Your task to perform on an android device: Open sound settings Image 0: 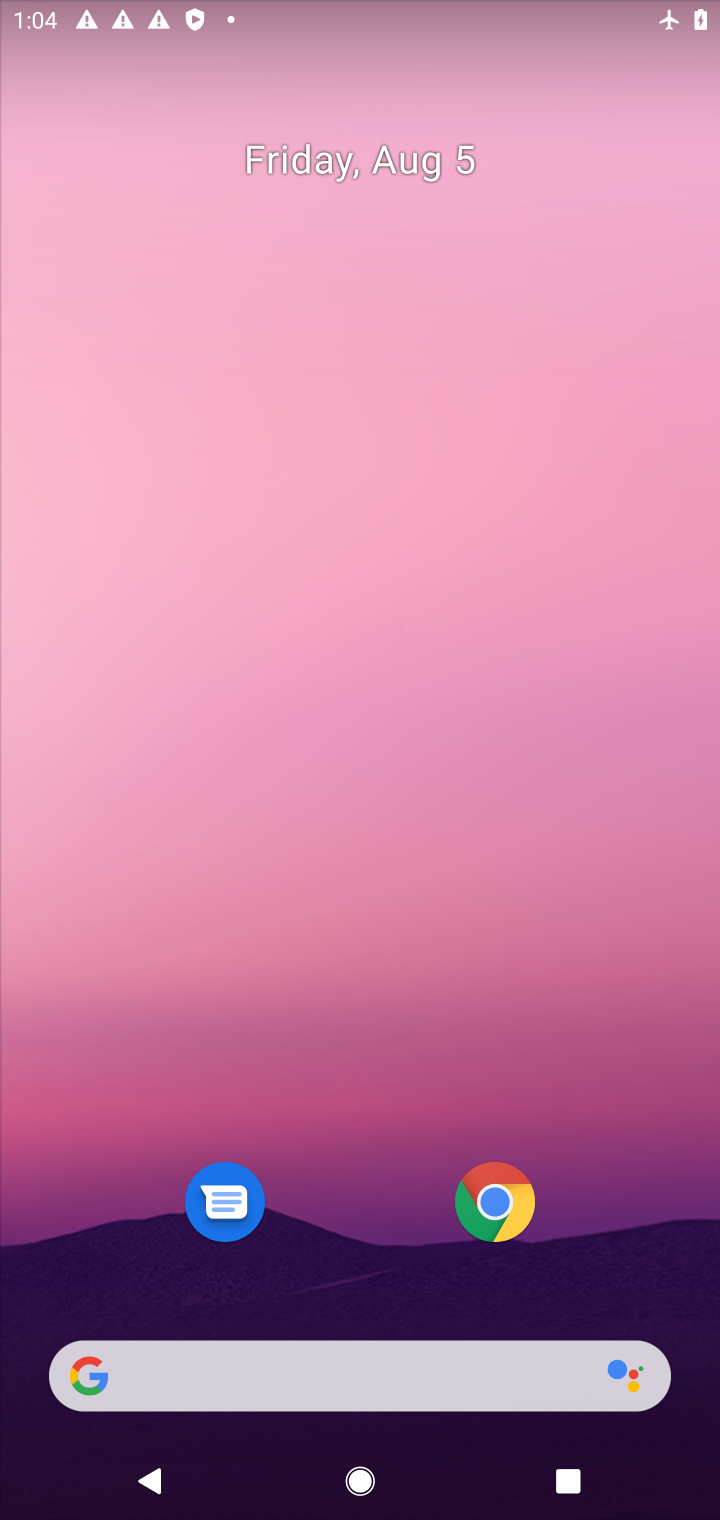
Step 0: drag from (389, 577) to (389, 202)
Your task to perform on an android device: Open sound settings Image 1: 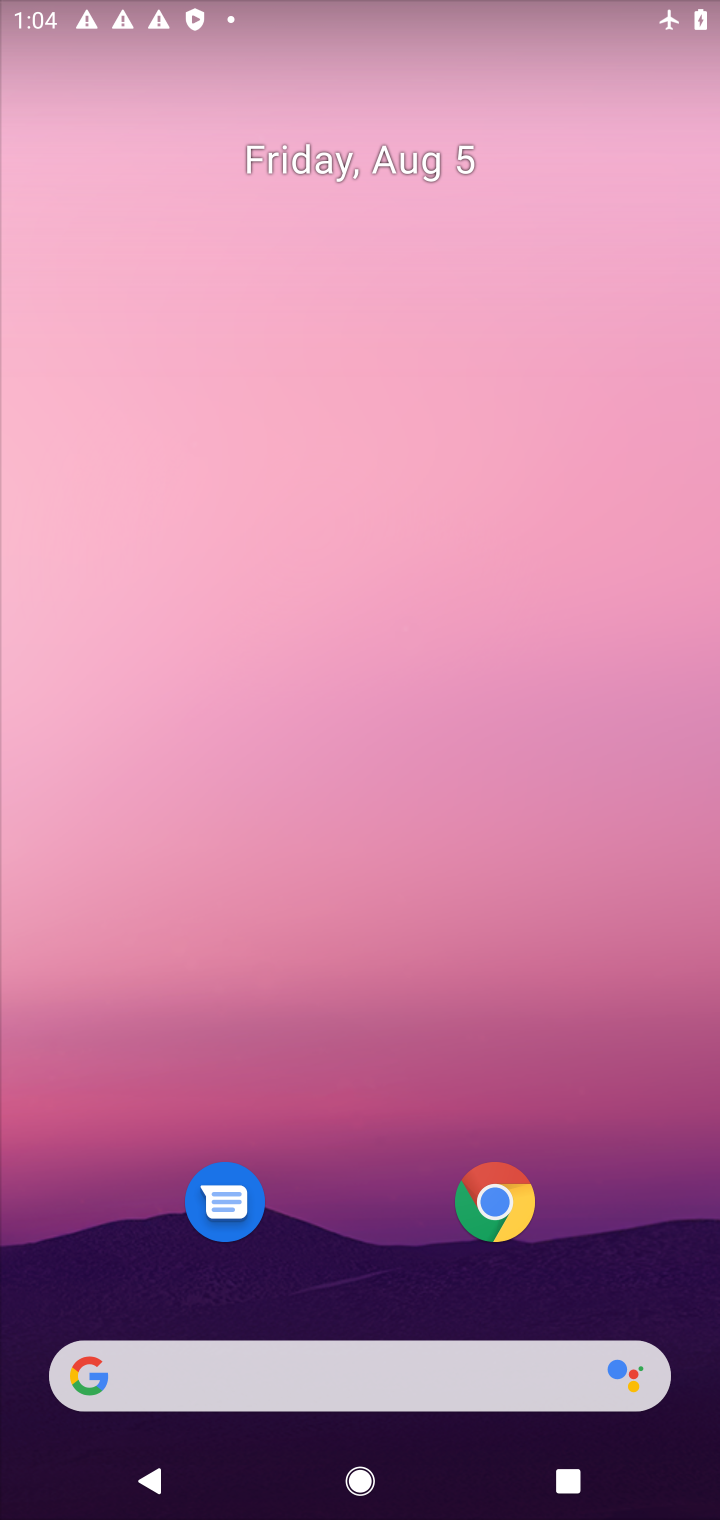
Step 1: drag from (355, 1234) to (448, 110)
Your task to perform on an android device: Open sound settings Image 2: 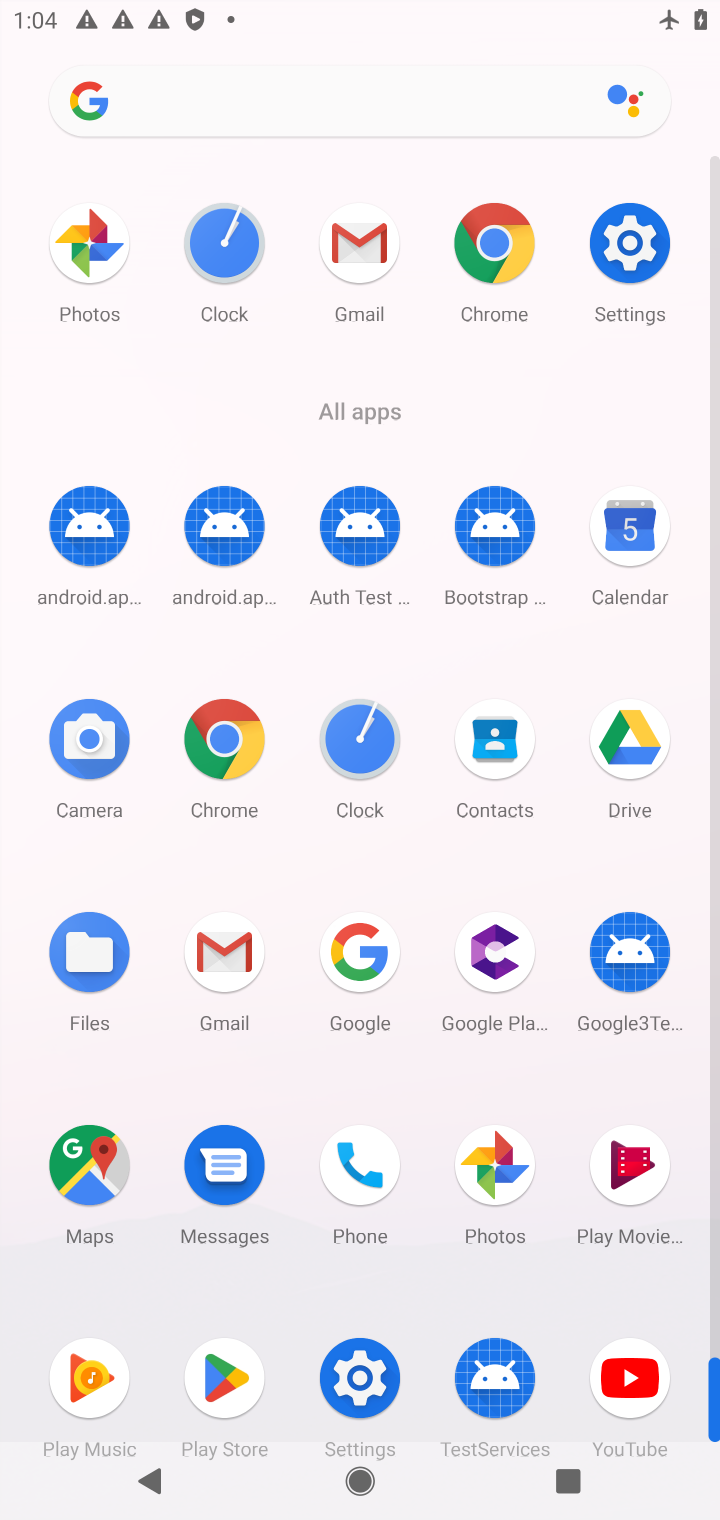
Step 2: click (373, 1386)
Your task to perform on an android device: Open sound settings Image 3: 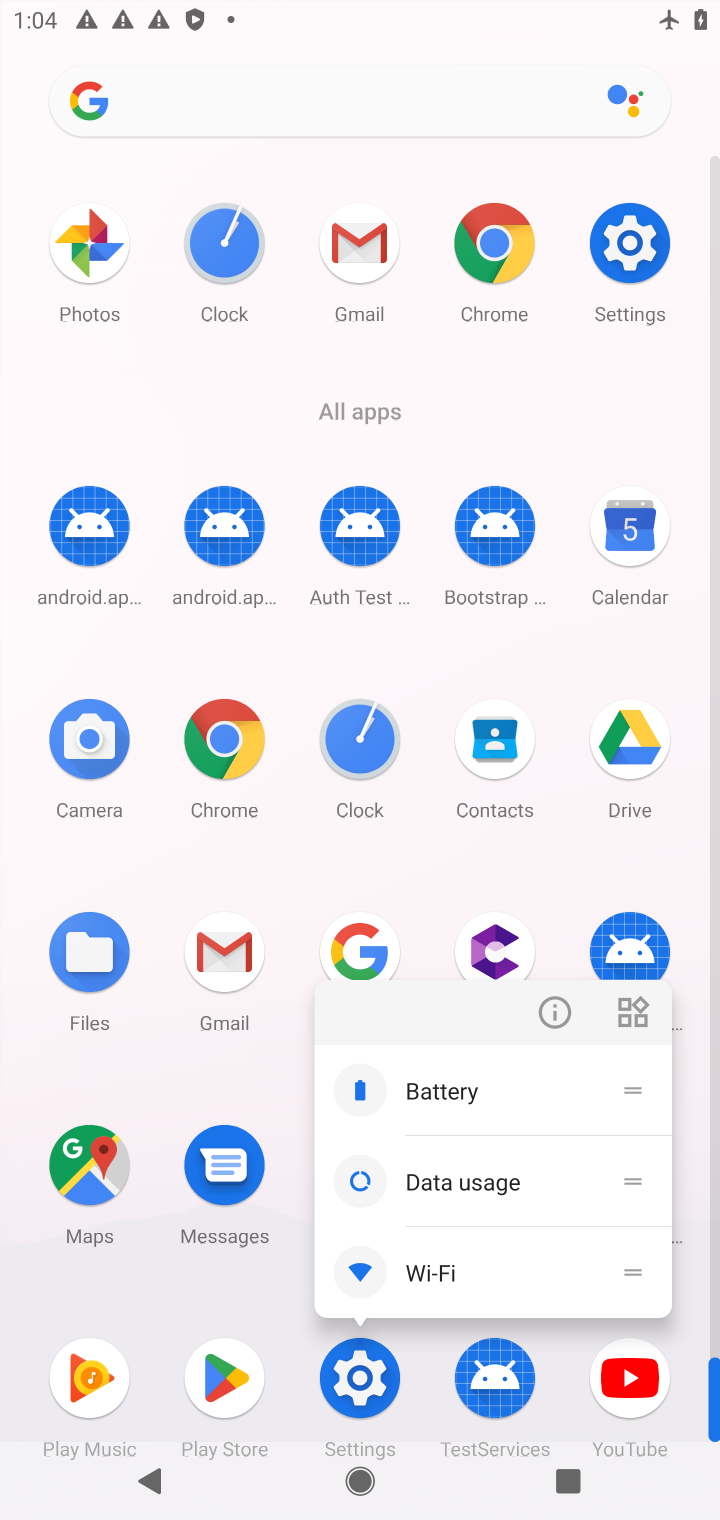
Step 3: click (373, 1377)
Your task to perform on an android device: Open sound settings Image 4: 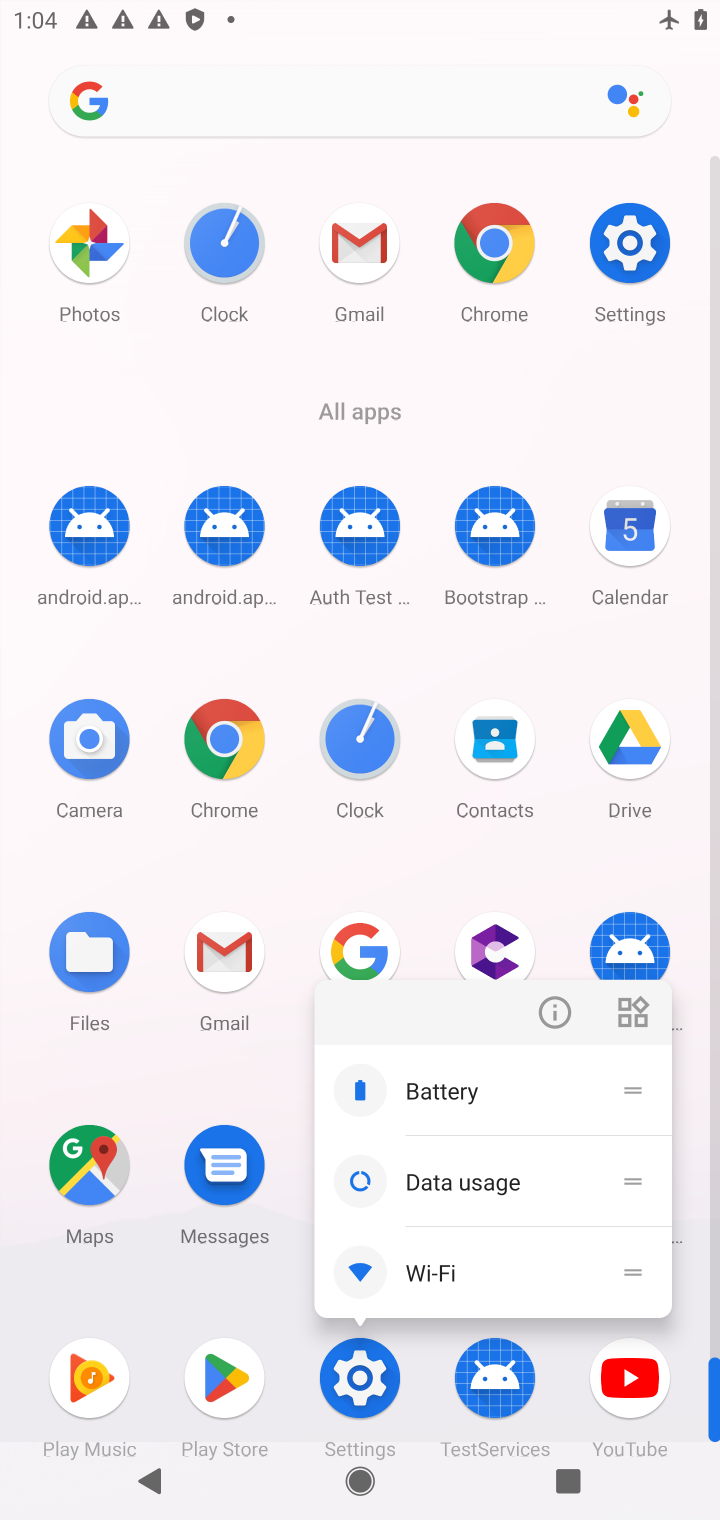
Step 4: click (273, 1277)
Your task to perform on an android device: Open sound settings Image 5: 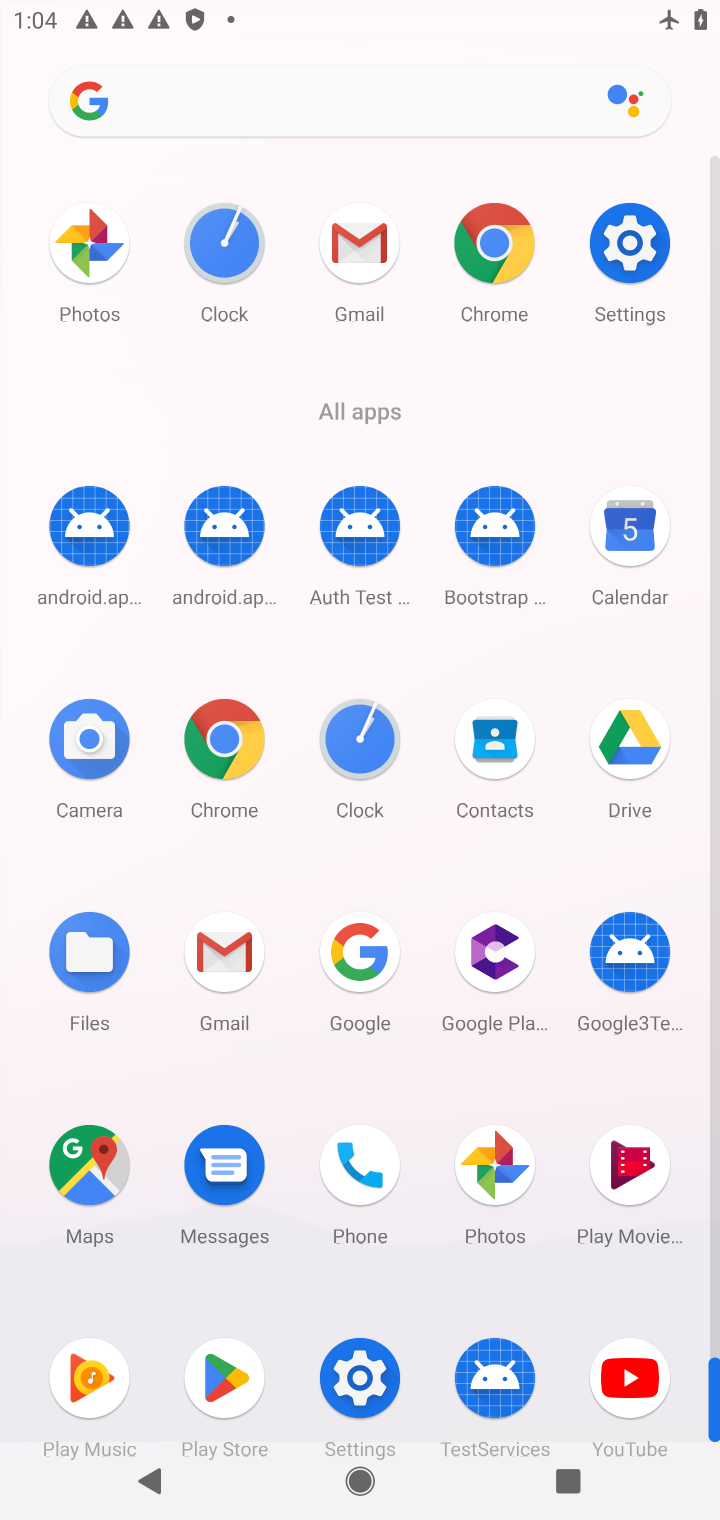
Step 5: click (357, 1376)
Your task to perform on an android device: Open sound settings Image 6: 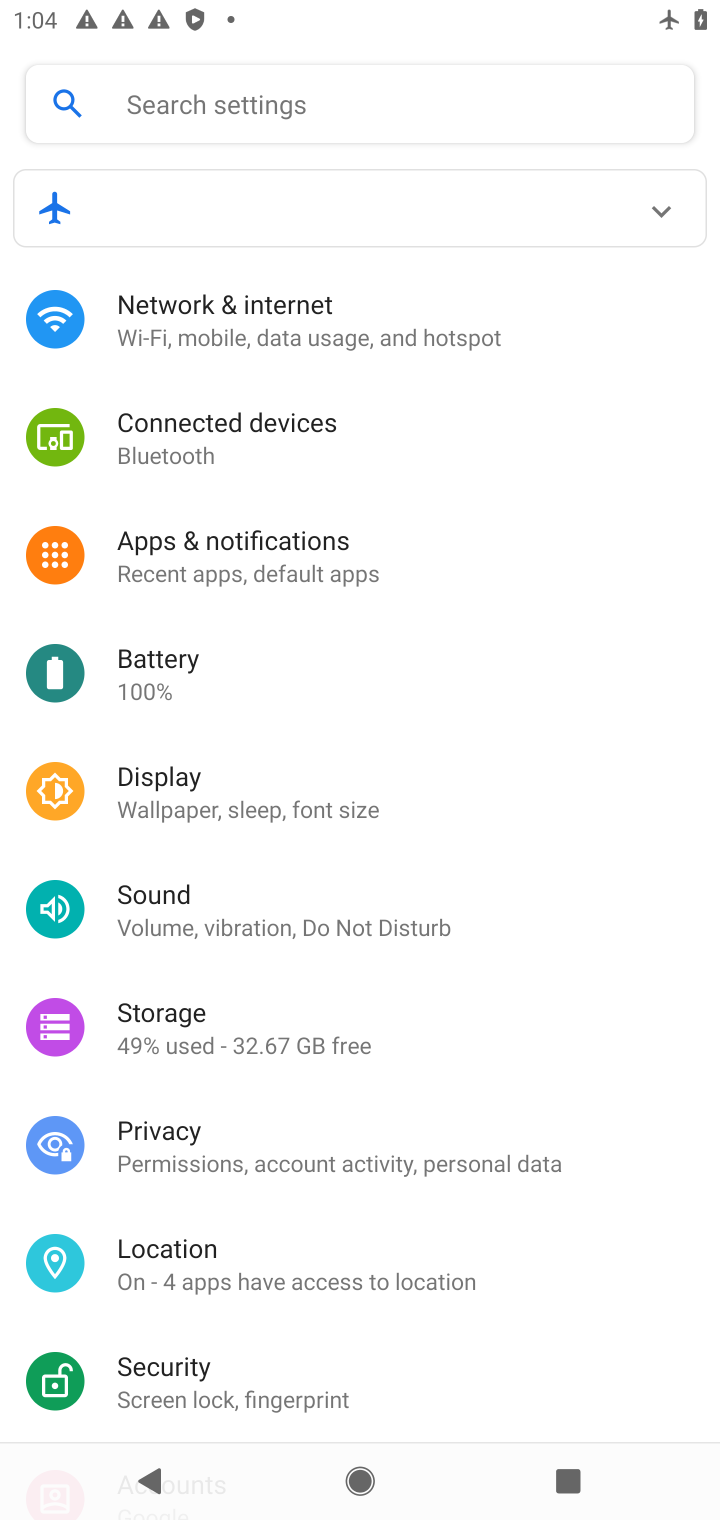
Step 6: click (153, 911)
Your task to perform on an android device: Open sound settings Image 7: 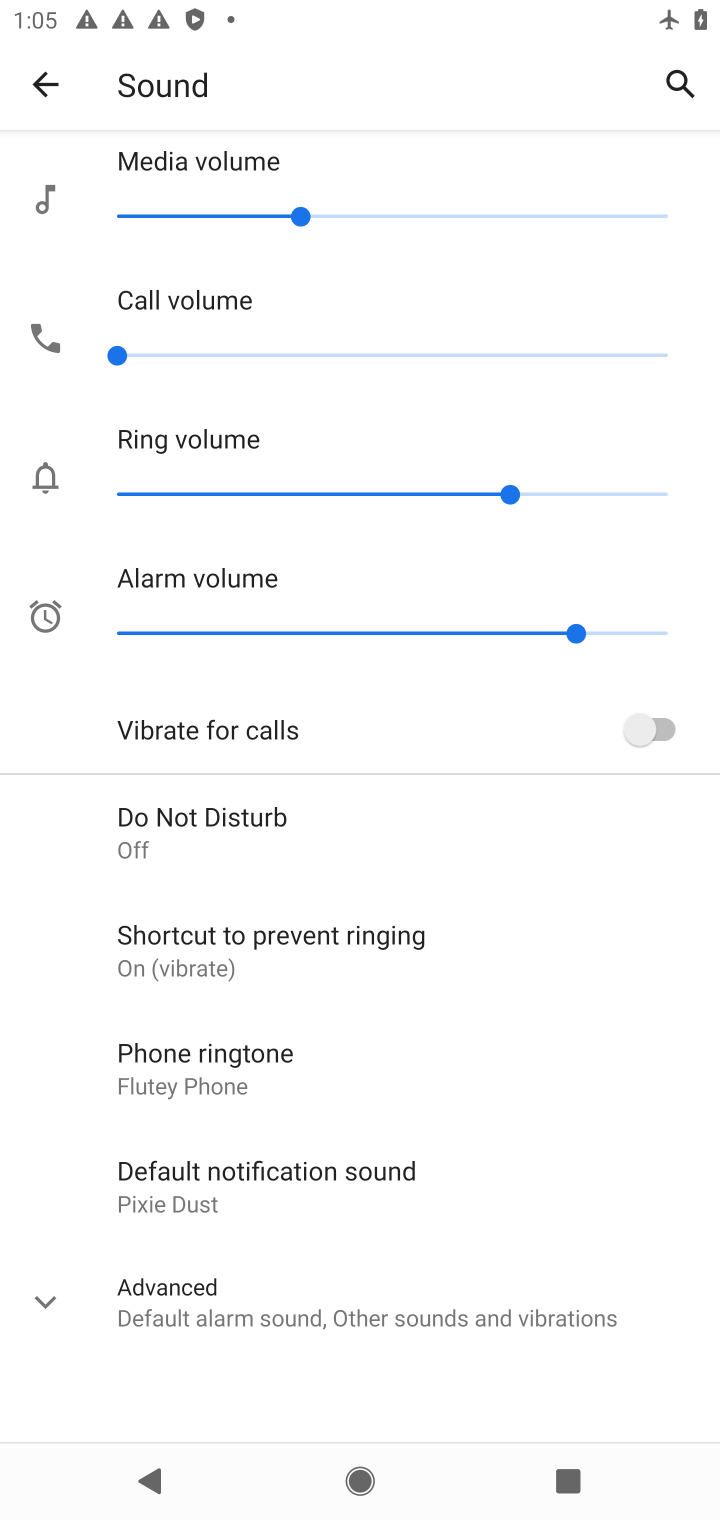
Step 7: task complete